Your task to perform on an android device: change your default location settings in chrome Image 0: 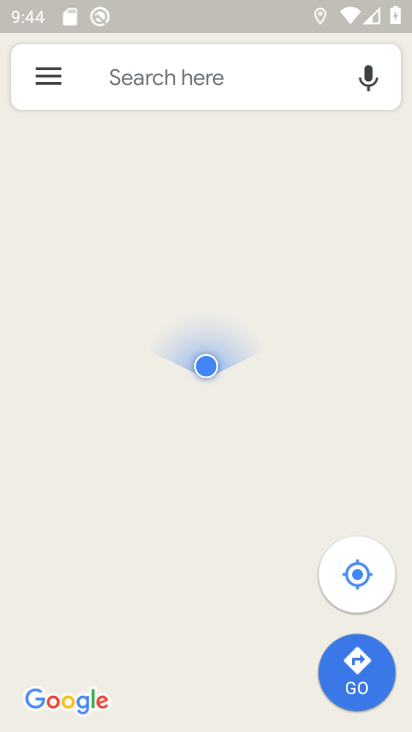
Step 0: press home button
Your task to perform on an android device: change your default location settings in chrome Image 1: 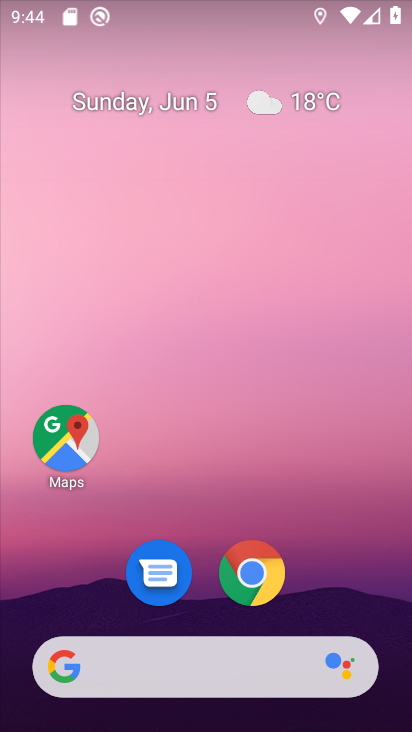
Step 1: click (246, 577)
Your task to perform on an android device: change your default location settings in chrome Image 2: 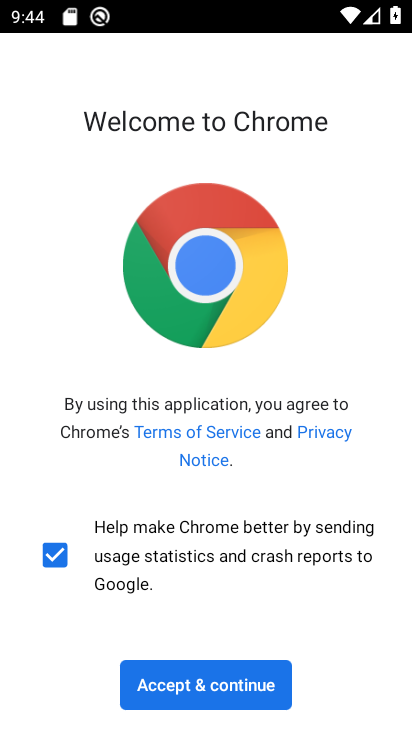
Step 2: click (186, 685)
Your task to perform on an android device: change your default location settings in chrome Image 3: 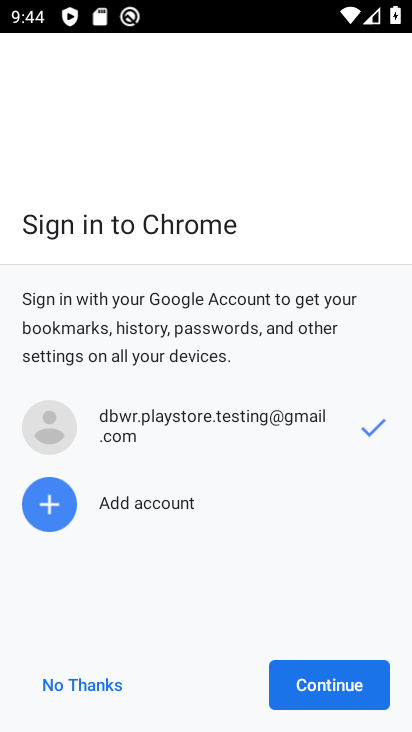
Step 3: click (311, 697)
Your task to perform on an android device: change your default location settings in chrome Image 4: 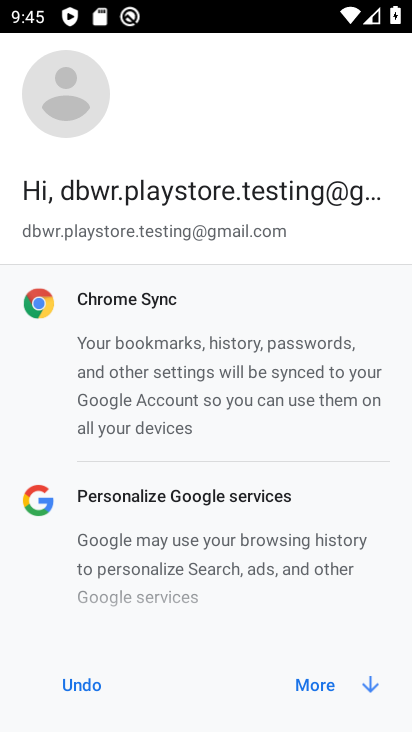
Step 4: click (311, 691)
Your task to perform on an android device: change your default location settings in chrome Image 5: 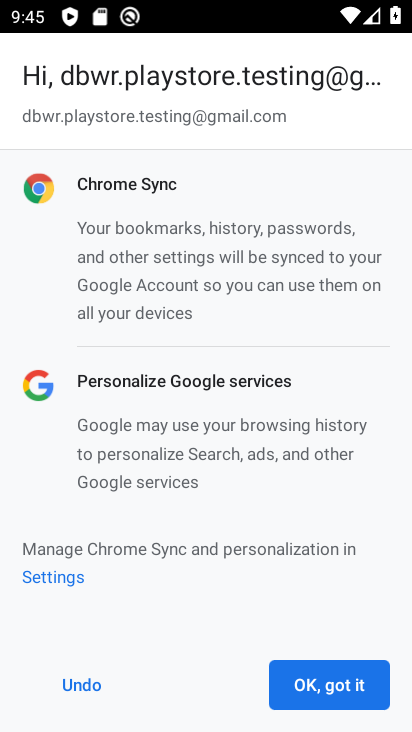
Step 5: click (311, 691)
Your task to perform on an android device: change your default location settings in chrome Image 6: 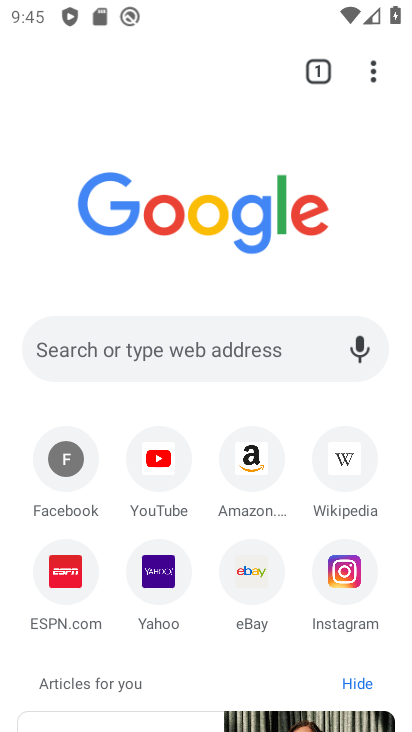
Step 6: click (366, 71)
Your task to perform on an android device: change your default location settings in chrome Image 7: 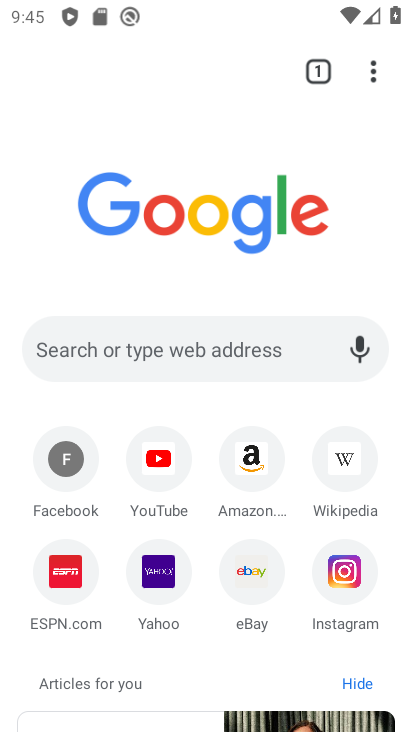
Step 7: click (369, 71)
Your task to perform on an android device: change your default location settings in chrome Image 8: 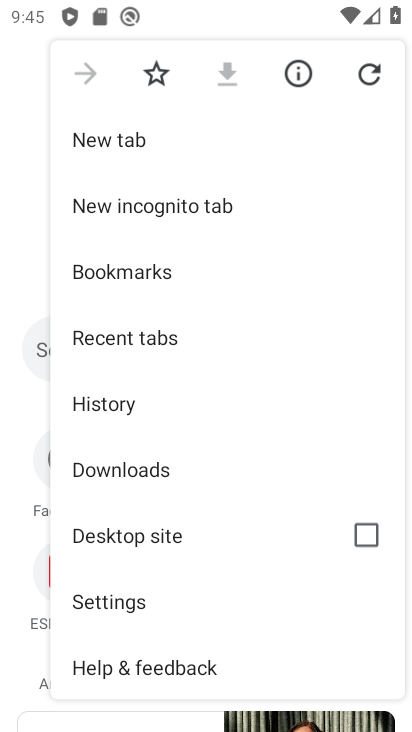
Step 8: click (119, 600)
Your task to perform on an android device: change your default location settings in chrome Image 9: 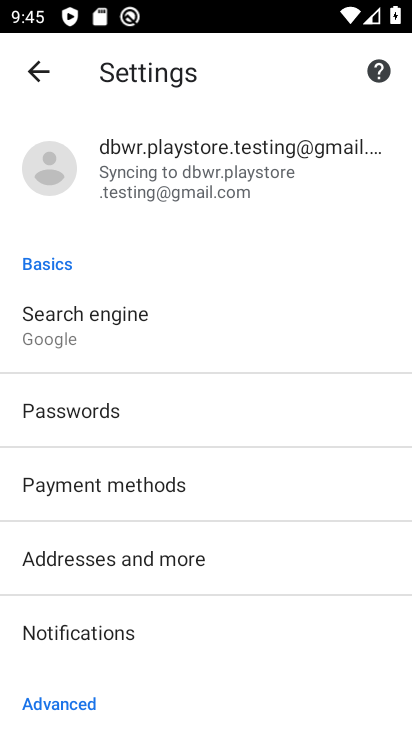
Step 9: drag from (138, 687) to (137, 314)
Your task to perform on an android device: change your default location settings in chrome Image 10: 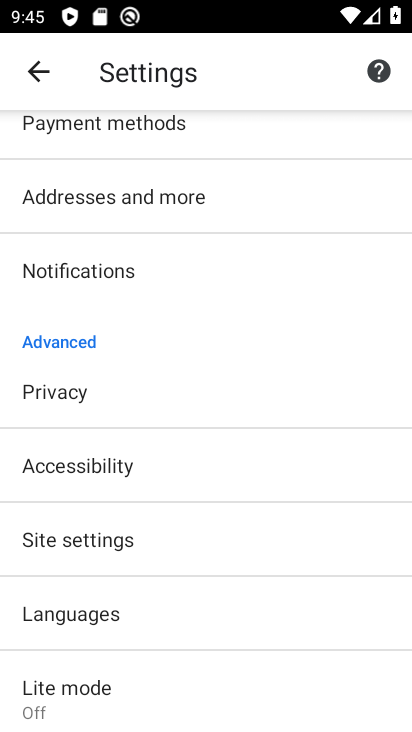
Step 10: click (79, 536)
Your task to perform on an android device: change your default location settings in chrome Image 11: 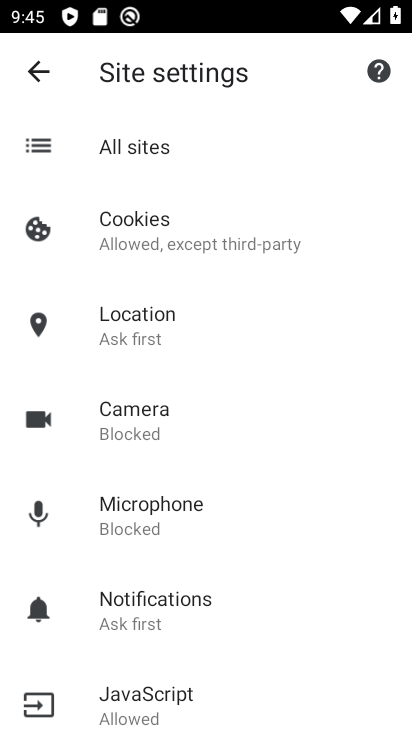
Step 11: click (127, 329)
Your task to perform on an android device: change your default location settings in chrome Image 12: 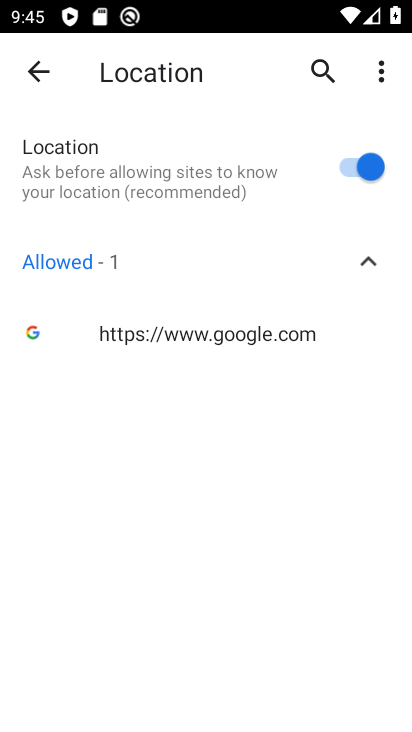
Step 12: click (356, 174)
Your task to perform on an android device: change your default location settings in chrome Image 13: 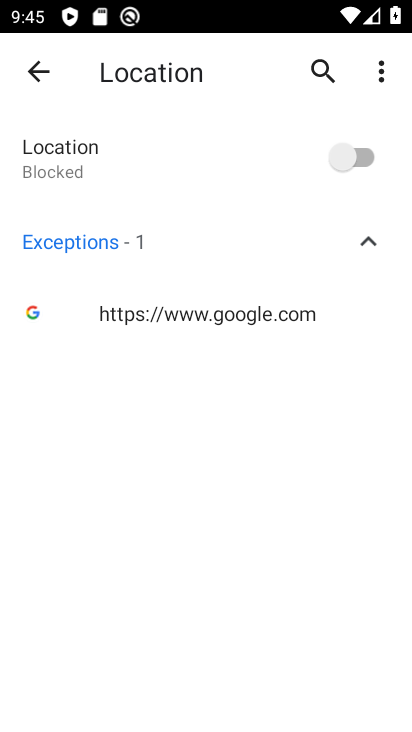
Step 13: task complete